Your task to perform on an android device: Show me the alarms in the clock app Image 0: 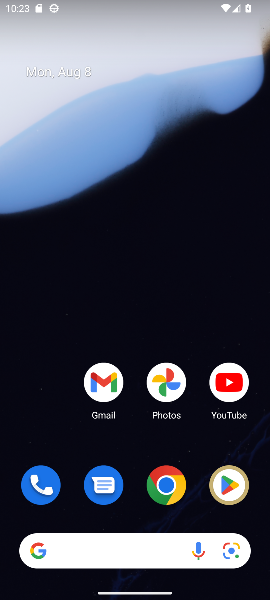
Step 0: drag from (168, 443) to (206, 50)
Your task to perform on an android device: Show me the alarms in the clock app Image 1: 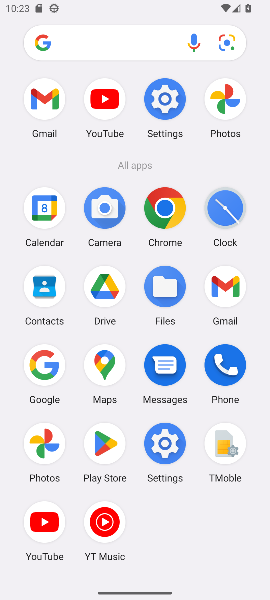
Step 1: click (218, 204)
Your task to perform on an android device: Show me the alarms in the clock app Image 2: 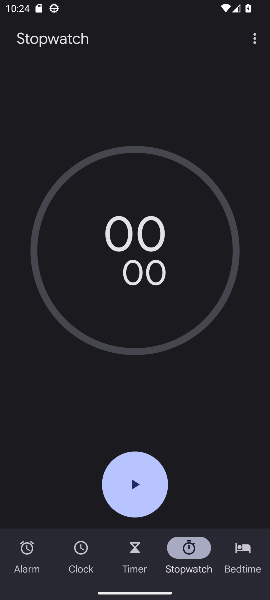
Step 2: click (27, 557)
Your task to perform on an android device: Show me the alarms in the clock app Image 3: 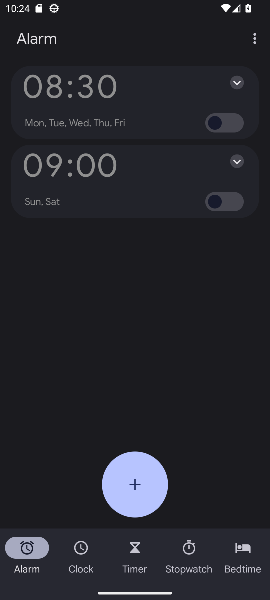
Step 3: task complete